Your task to perform on an android device: Search for usb-c to usb-b on newegg.com, select the first entry, add it to the cart, then select checkout. Image 0: 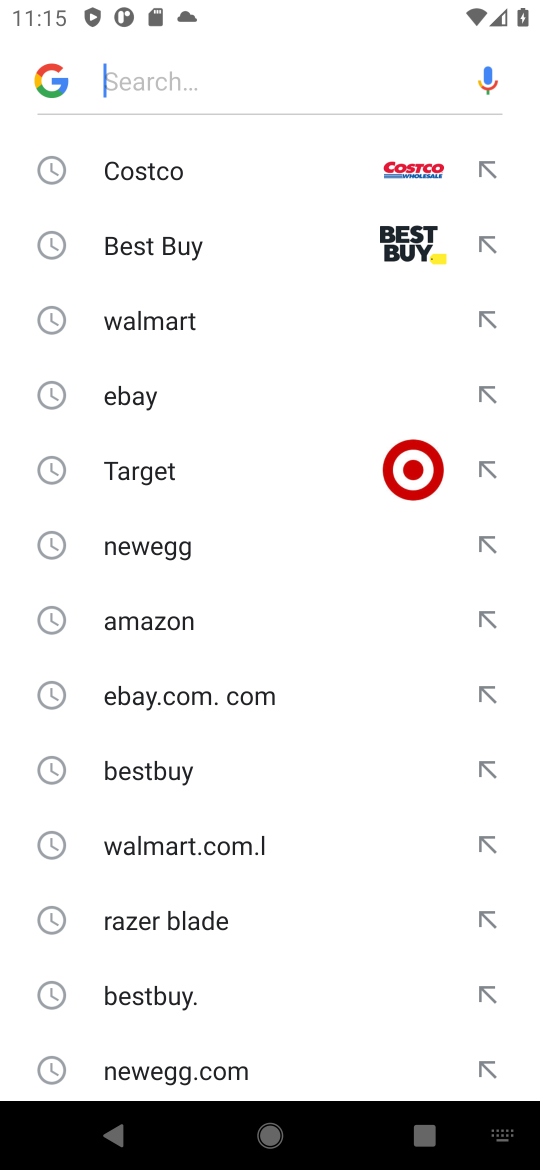
Step 0: press home button
Your task to perform on an android device: Search for usb-c to usb-b on newegg.com, select the first entry, add it to the cart, then select checkout. Image 1: 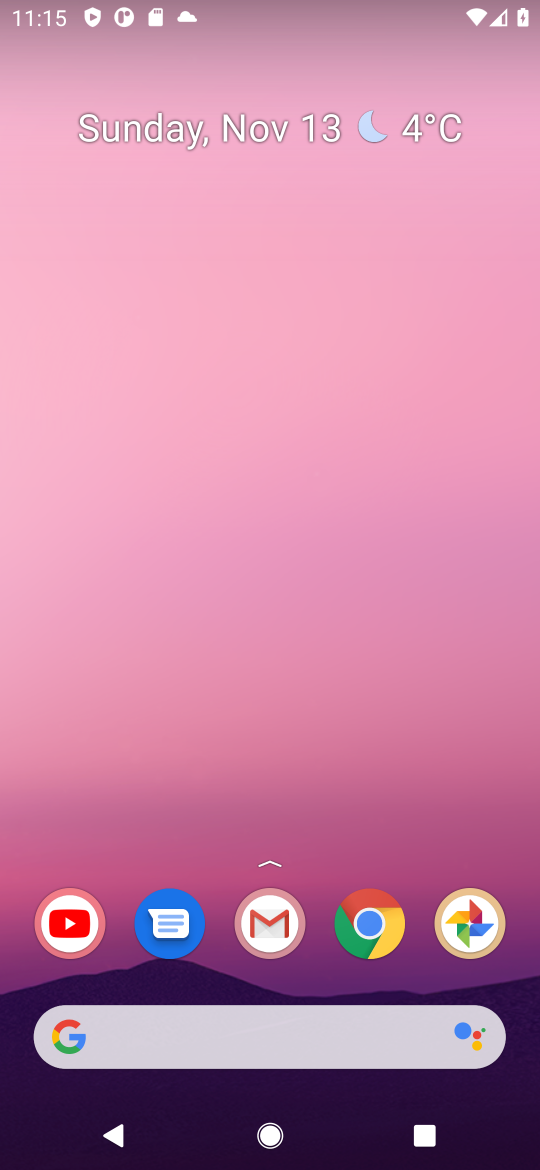
Step 1: click (366, 925)
Your task to perform on an android device: Search for usb-c to usb-b on newegg.com, select the first entry, add it to the cart, then select checkout. Image 2: 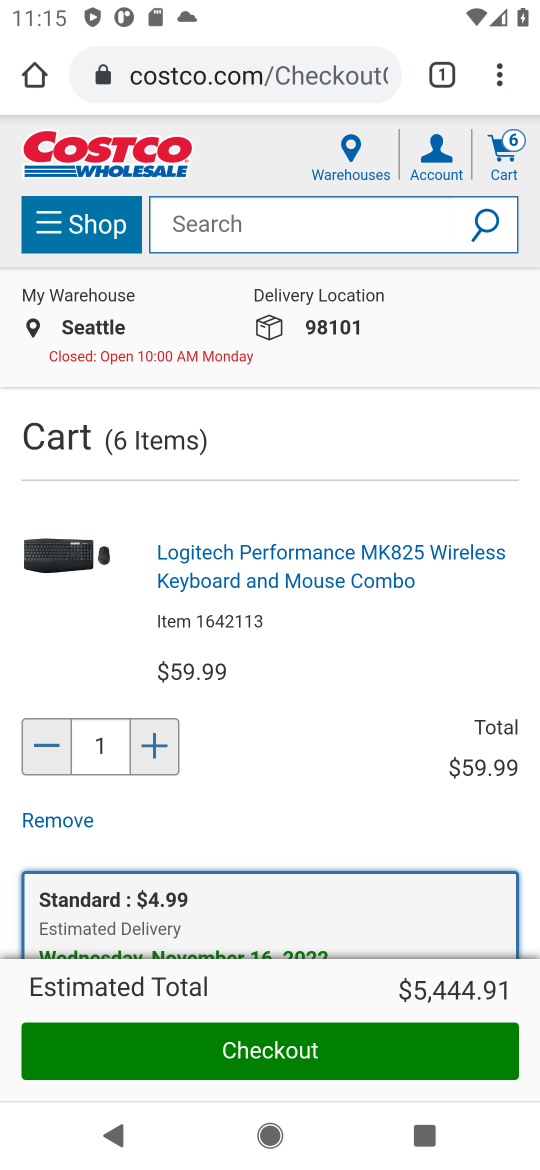
Step 2: click (318, 87)
Your task to perform on an android device: Search for usb-c to usb-b on newegg.com, select the first entry, add it to the cart, then select checkout. Image 3: 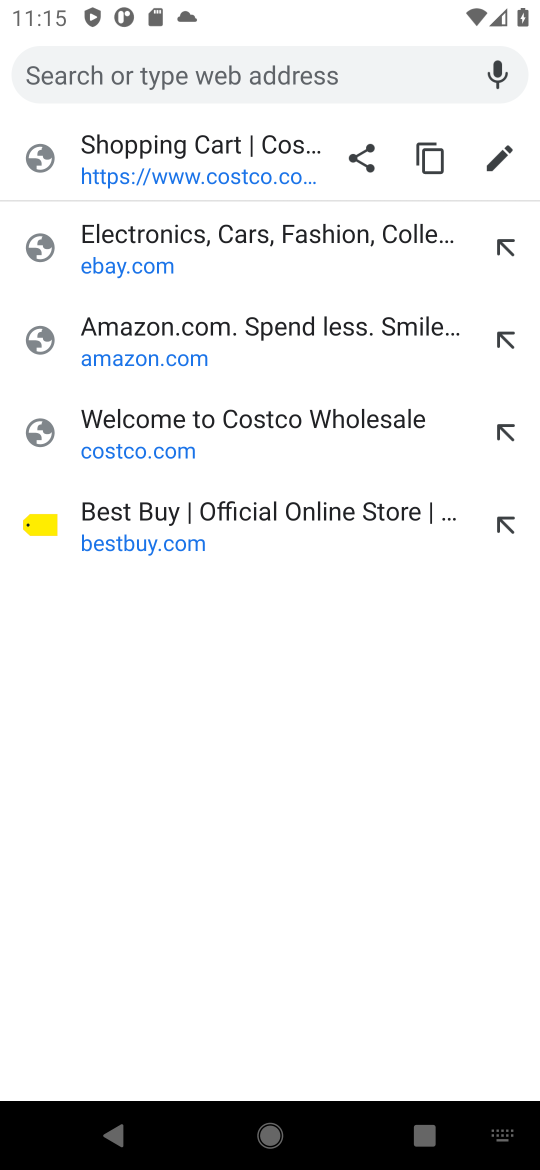
Step 3: type "newegg.com"
Your task to perform on an android device: Search for usb-c to usb-b on newegg.com, select the first entry, add it to the cart, then select checkout. Image 4: 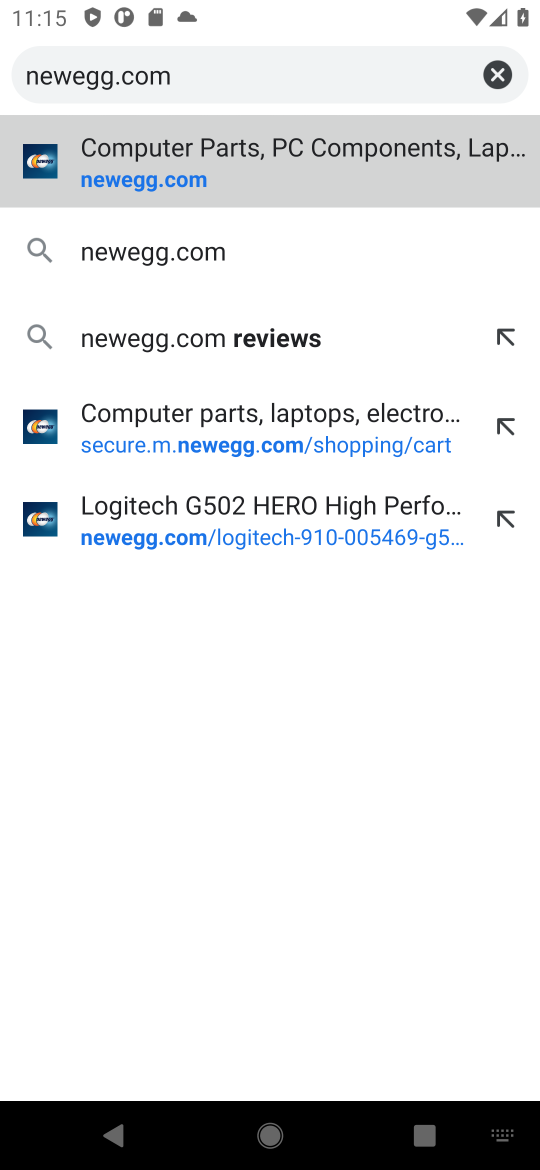
Step 4: press enter
Your task to perform on an android device: Search for usb-c to usb-b on newegg.com, select the first entry, add it to the cart, then select checkout. Image 5: 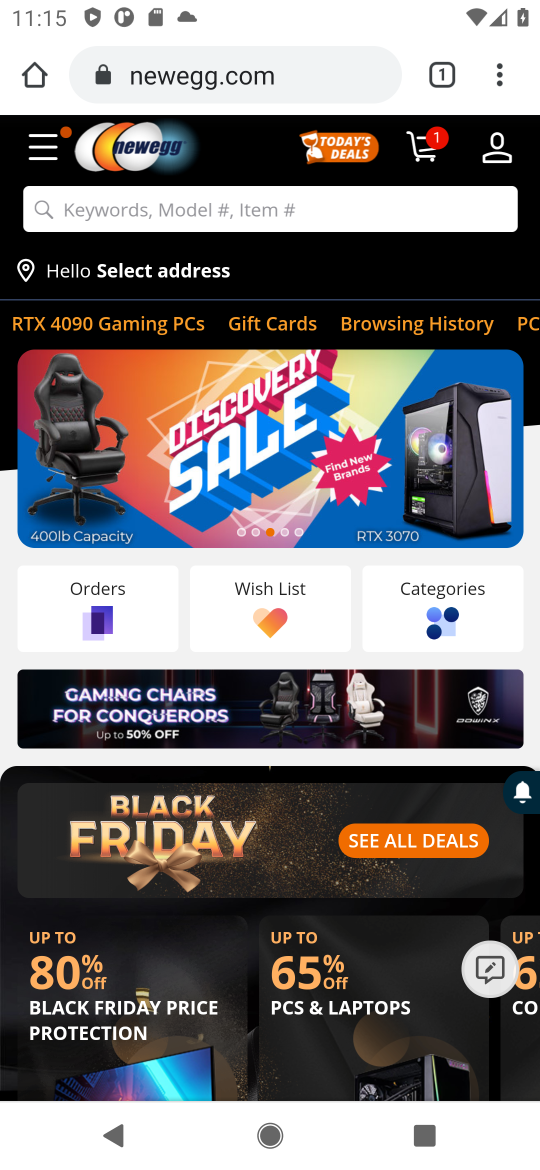
Step 5: click (320, 189)
Your task to perform on an android device: Search for usb-c to usb-b on newegg.com, select the first entry, add it to the cart, then select checkout. Image 6: 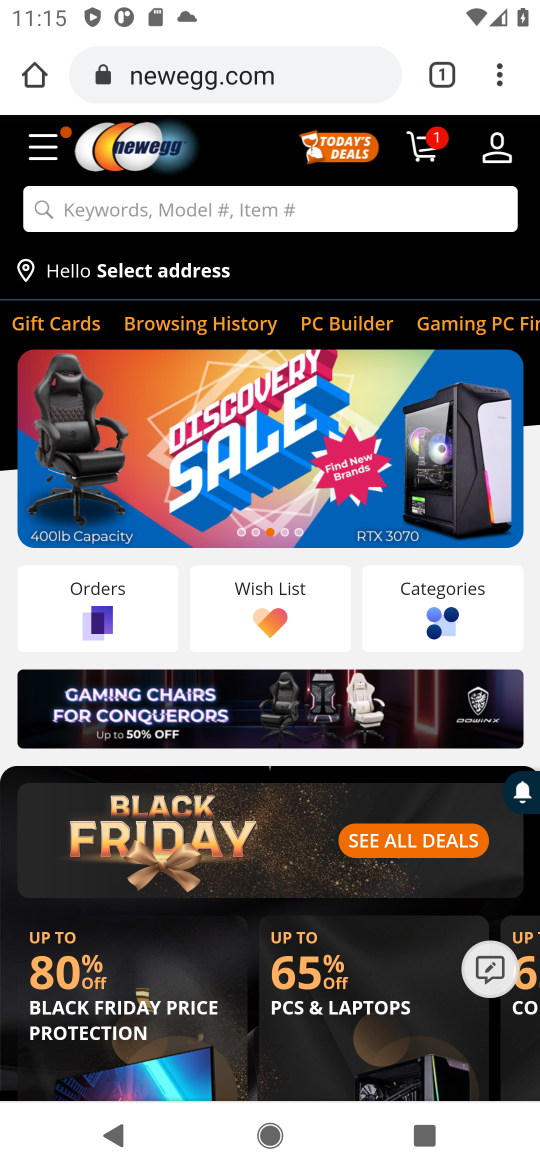
Step 6: click (326, 199)
Your task to perform on an android device: Search for usb-c to usb-b on newegg.com, select the first entry, add it to the cart, then select checkout. Image 7: 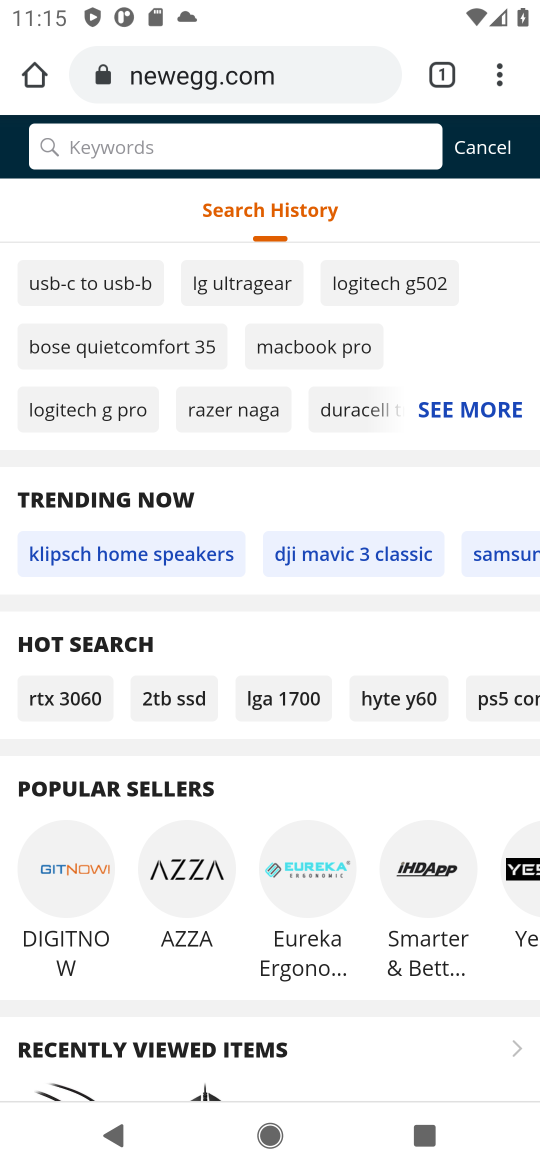
Step 7: click (334, 144)
Your task to perform on an android device: Search for usb-c to usb-b on newegg.com, select the first entry, add it to the cart, then select checkout. Image 8: 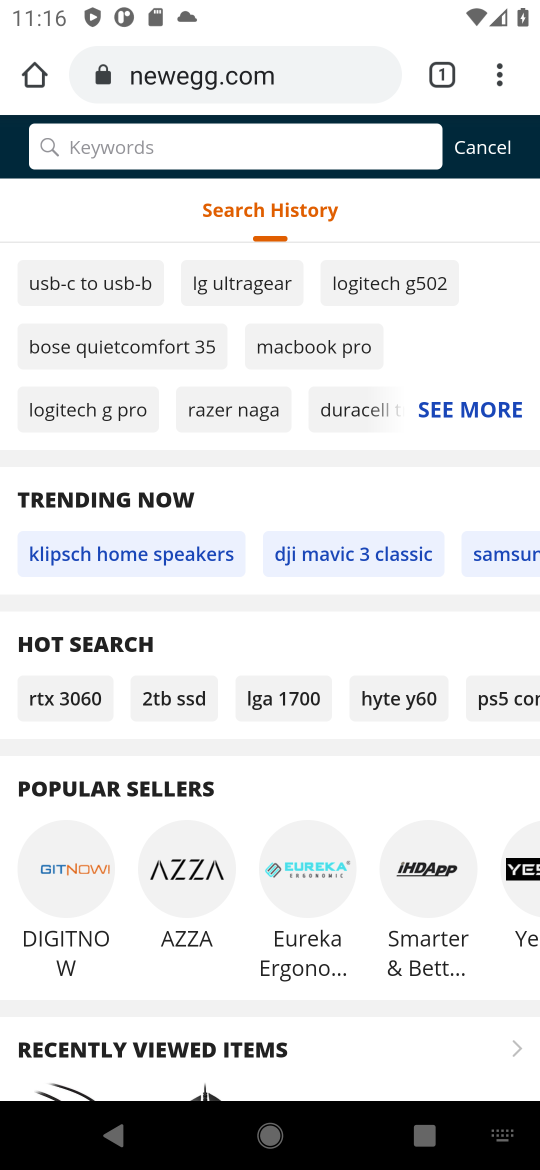
Step 8: type "usb-c to usb-b"
Your task to perform on an android device: Search for usb-c to usb-b on newegg.com, select the first entry, add it to the cart, then select checkout. Image 9: 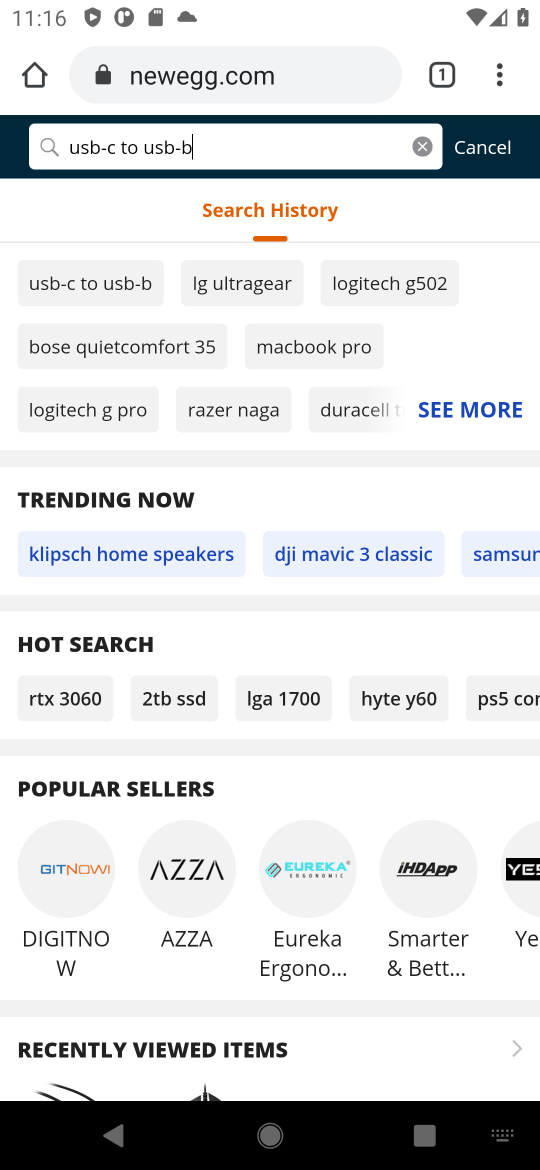
Step 9: press enter
Your task to perform on an android device: Search for usb-c to usb-b on newegg.com, select the first entry, add it to the cart, then select checkout. Image 10: 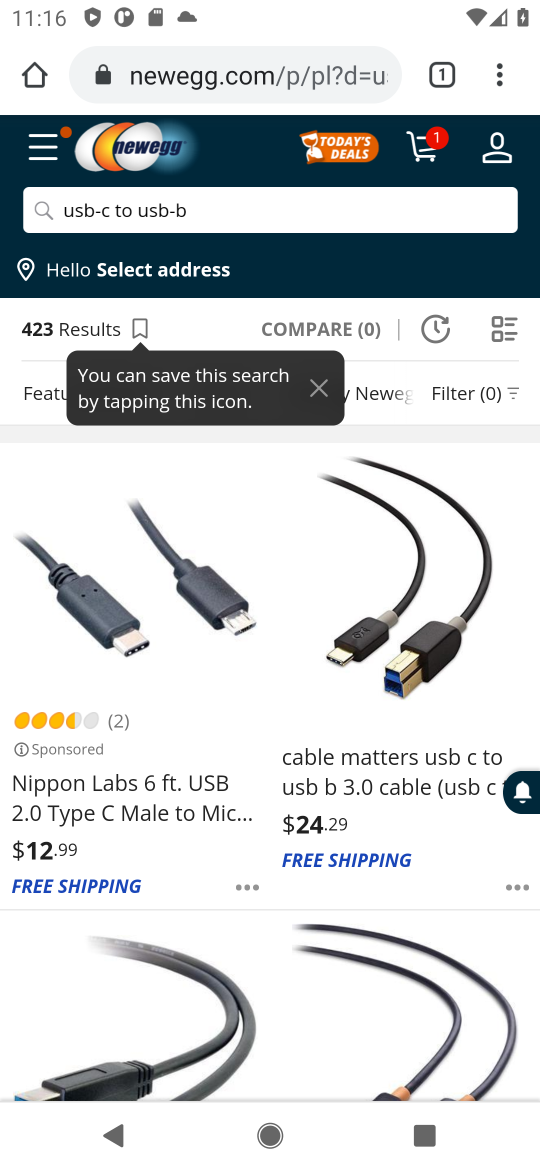
Step 10: task complete